Your task to perform on an android device: Clear the shopping cart on walmart.com. Search for "usb-c to usb-b" on walmart.com, select the first entry, and add it to the cart. Image 0: 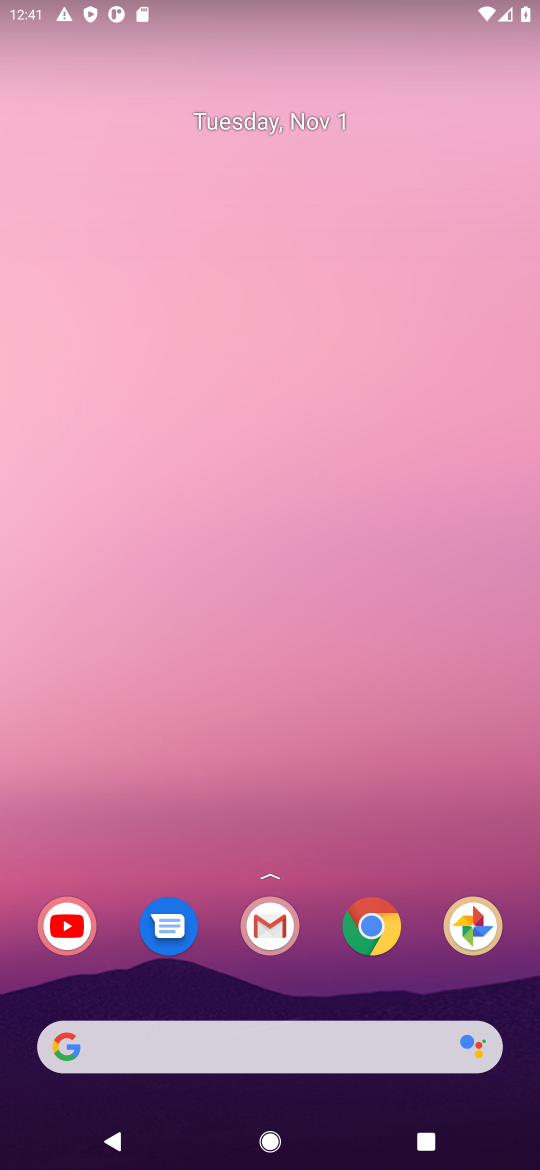
Step 0: click (365, 937)
Your task to perform on an android device: Clear the shopping cart on walmart.com. Search for "usb-c to usb-b" on walmart.com, select the first entry, and add it to the cart. Image 1: 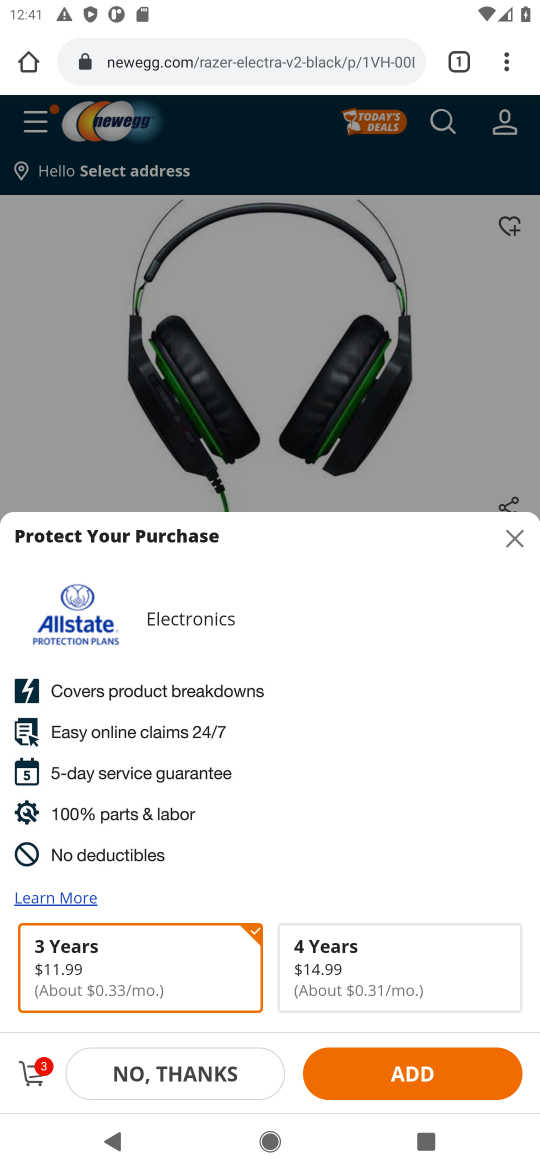
Step 1: click (244, 54)
Your task to perform on an android device: Clear the shopping cart on walmart.com. Search for "usb-c to usb-b" on walmart.com, select the first entry, and add it to the cart. Image 2: 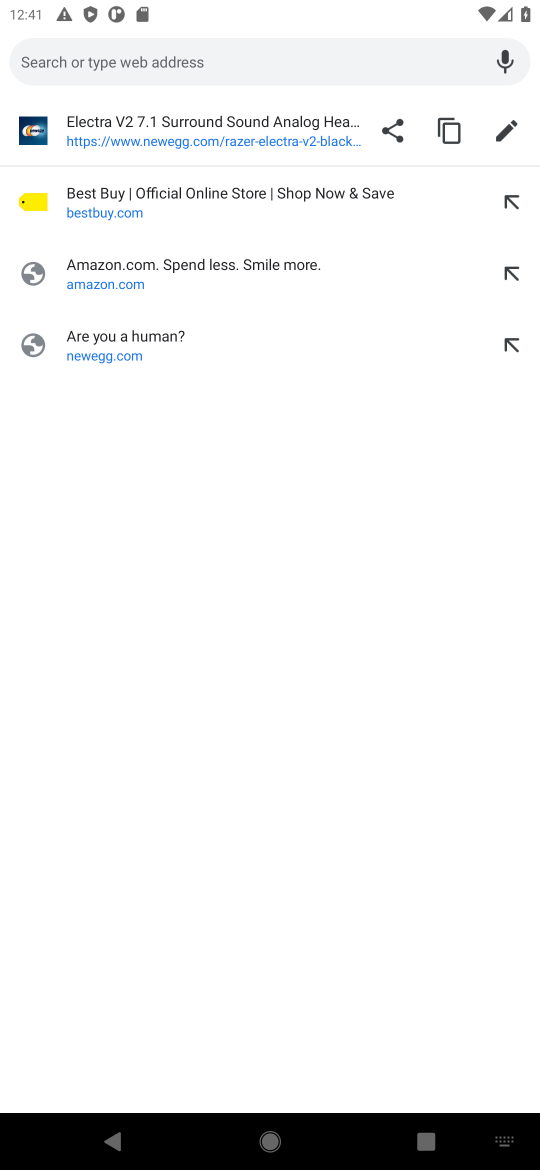
Step 2: type "walmart"
Your task to perform on an android device: Clear the shopping cart on walmart.com. Search for "usb-c to usb-b" on walmart.com, select the first entry, and add it to the cart. Image 3: 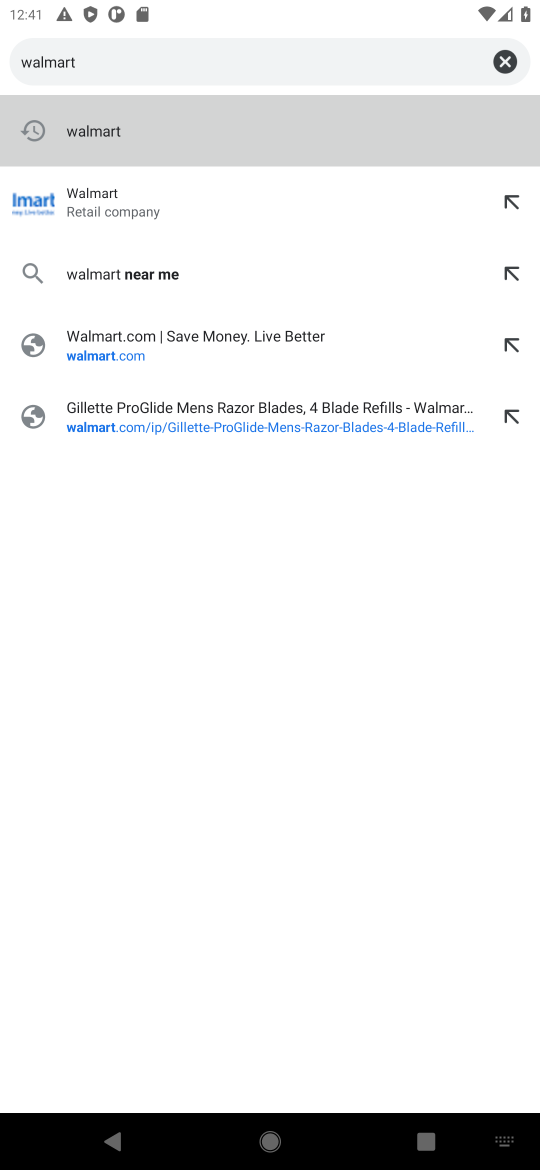
Step 3: click (202, 129)
Your task to perform on an android device: Clear the shopping cart on walmart.com. Search for "usb-c to usb-b" on walmart.com, select the first entry, and add it to the cart. Image 4: 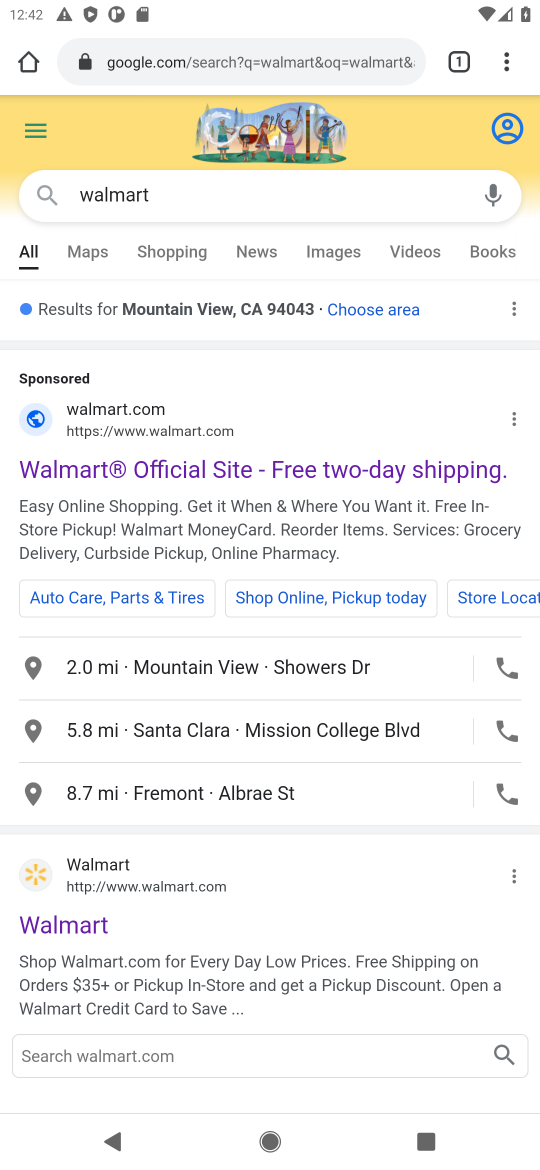
Step 4: click (55, 921)
Your task to perform on an android device: Clear the shopping cart on walmart.com. Search for "usb-c to usb-b" on walmart.com, select the first entry, and add it to the cart. Image 5: 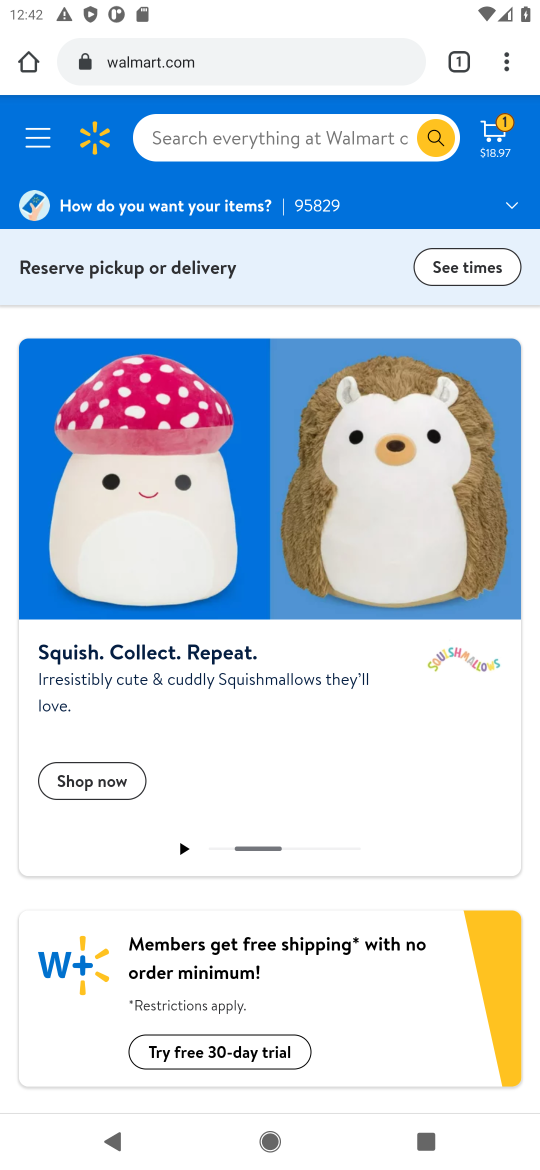
Step 5: click (491, 137)
Your task to perform on an android device: Clear the shopping cart on walmart.com. Search for "usb-c to usb-b" on walmart.com, select the first entry, and add it to the cart. Image 6: 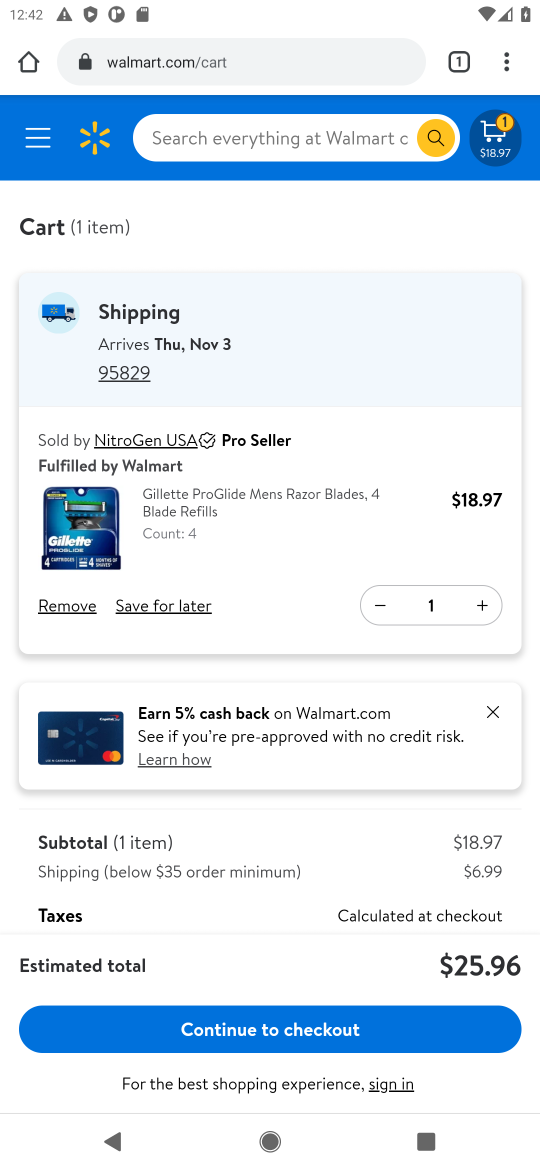
Step 6: click (380, 607)
Your task to perform on an android device: Clear the shopping cart on walmart.com. Search for "usb-c to usb-b" on walmart.com, select the first entry, and add it to the cart. Image 7: 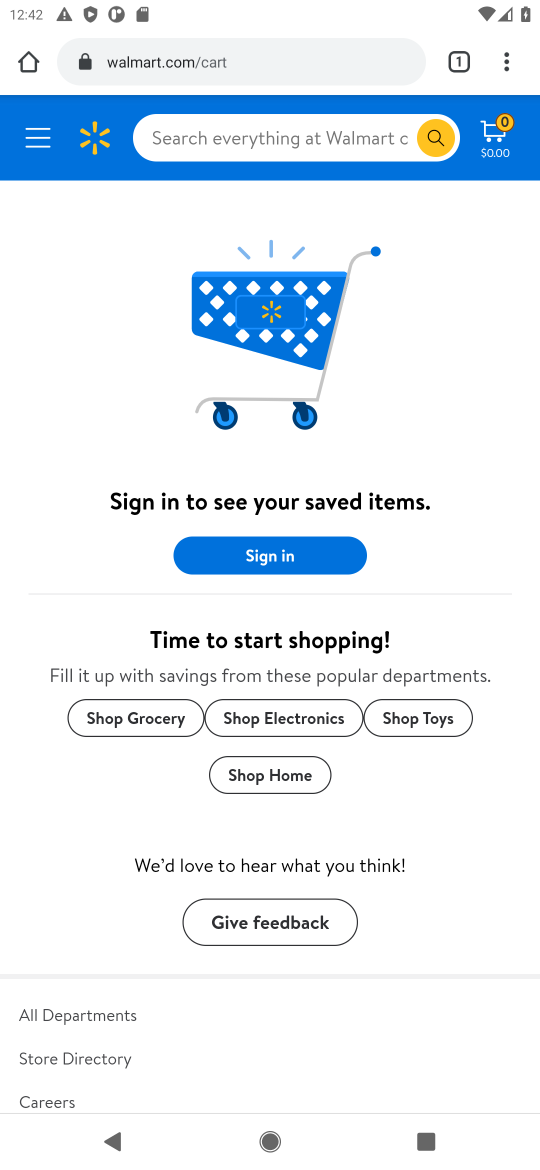
Step 7: click (252, 142)
Your task to perform on an android device: Clear the shopping cart on walmart.com. Search for "usb-c to usb-b" on walmart.com, select the first entry, and add it to the cart. Image 8: 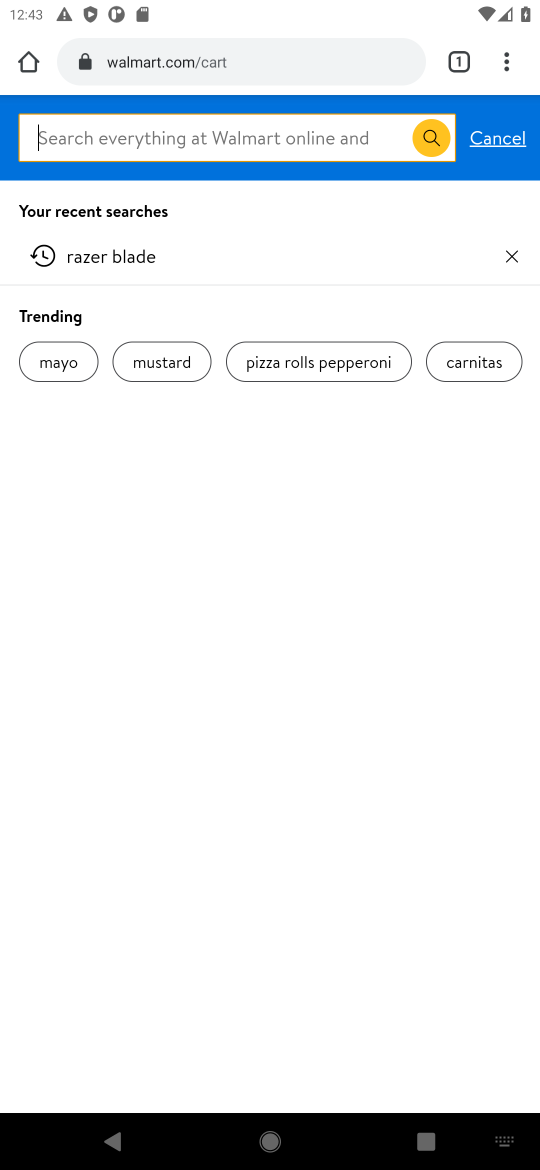
Step 8: type "usb-c to usb-b"
Your task to perform on an android device: Clear the shopping cart on walmart.com. Search for "usb-c to usb-b" on walmart.com, select the first entry, and add it to the cart. Image 9: 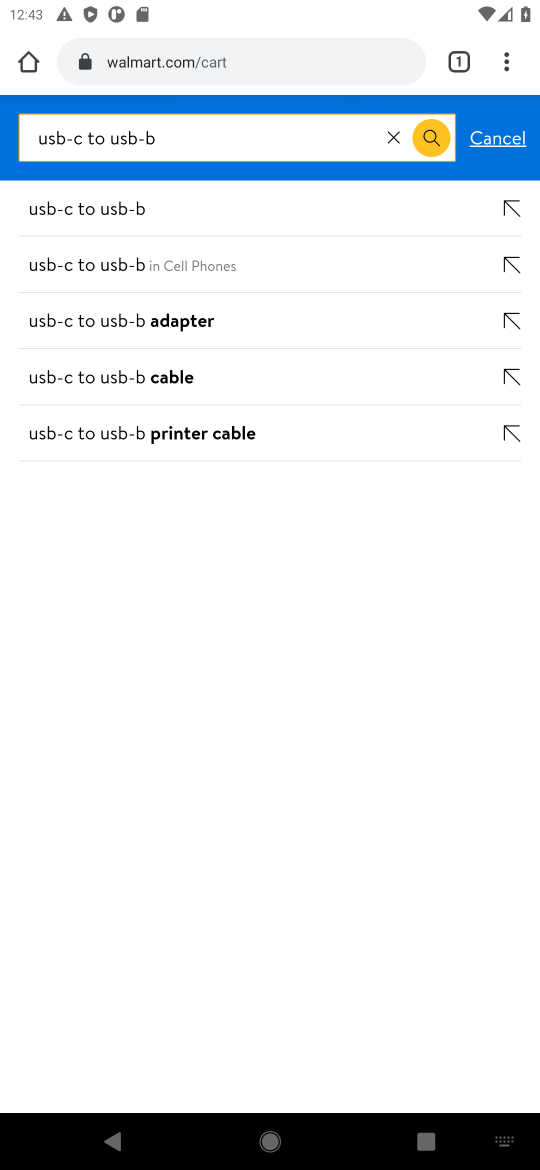
Step 9: click (134, 203)
Your task to perform on an android device: Clear the shopping cart on walmart.com. Search for "usb-c to usb-b" on walmart.com, select the first entry, and add it to the cart. Image 10: 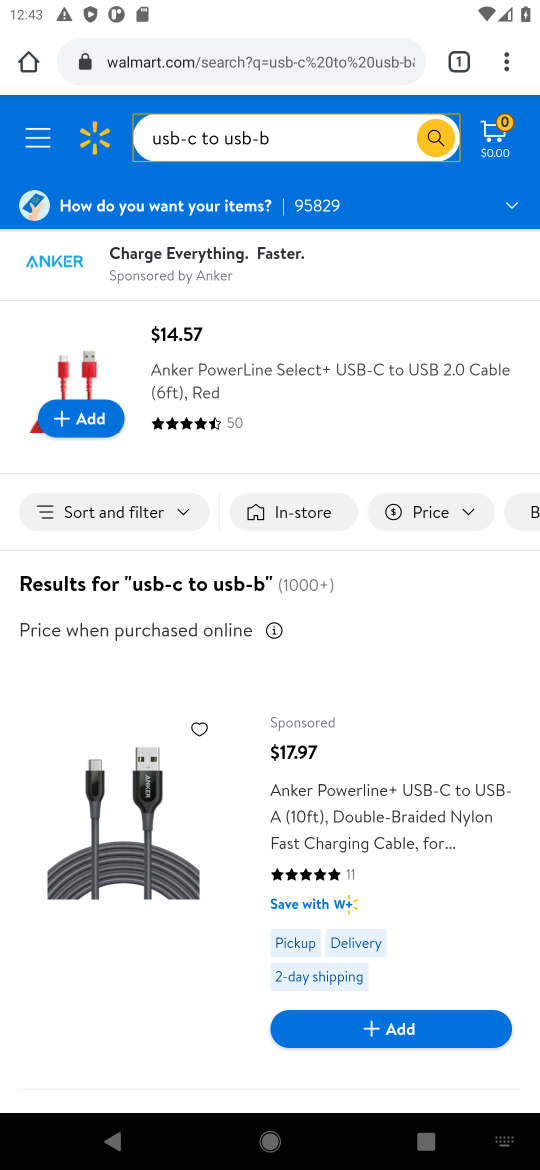
Step 10: click (184, 812)
Your task to perform on an android device: Clear the shopping cart on walmart.com. Search for "usb-c to usb-b" on walmart.com, select the first entry, and add it to the cart. Image 11: 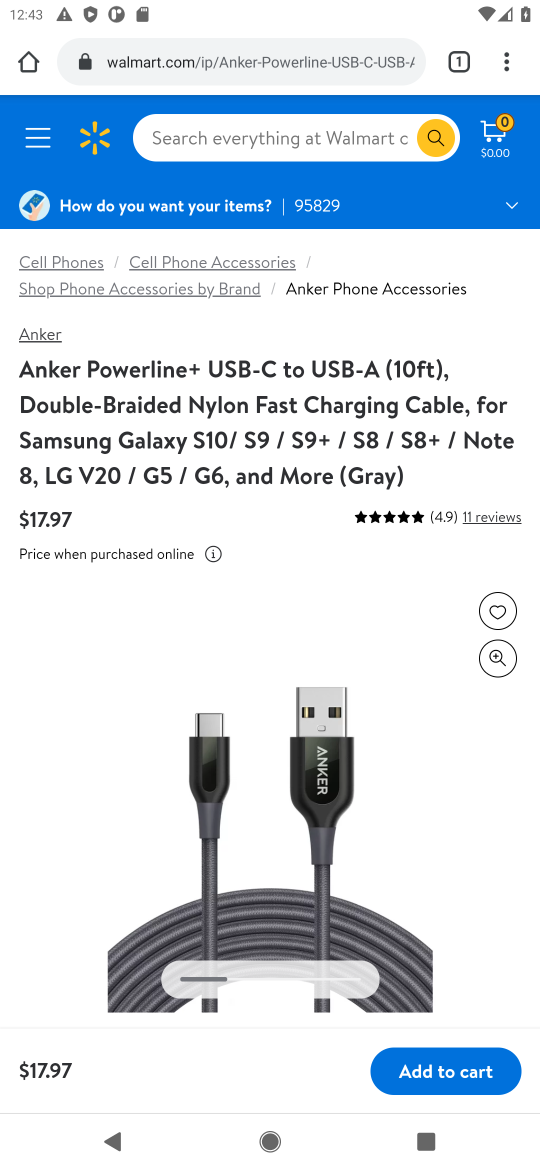
Step 11: press back button
Your task to perform on an android device: Clear the shopping cart on walmart.com. Search for "usb-c to usb-b" on walmart.com, select the first entry, and add it to the cart. Image 12: 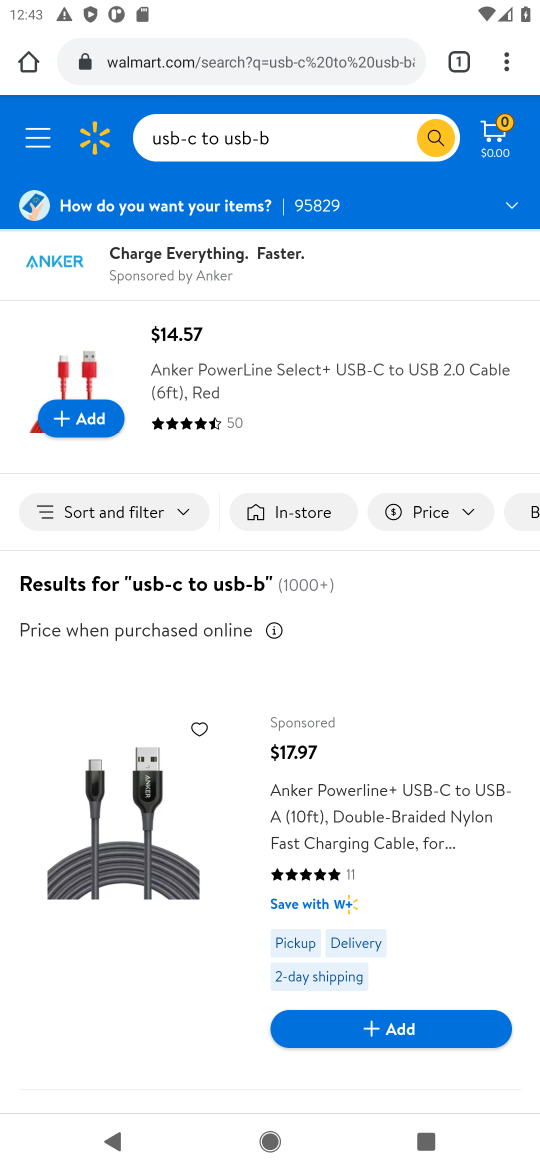
Step 12: drag from (215, 946) to (237, 757)
Your task to perform on an android device: Clear the shopping cart on walmart.com. Search for "usb-c to usb-b" on walmart.com, select the first entry, and add it to the cart. Image 13: 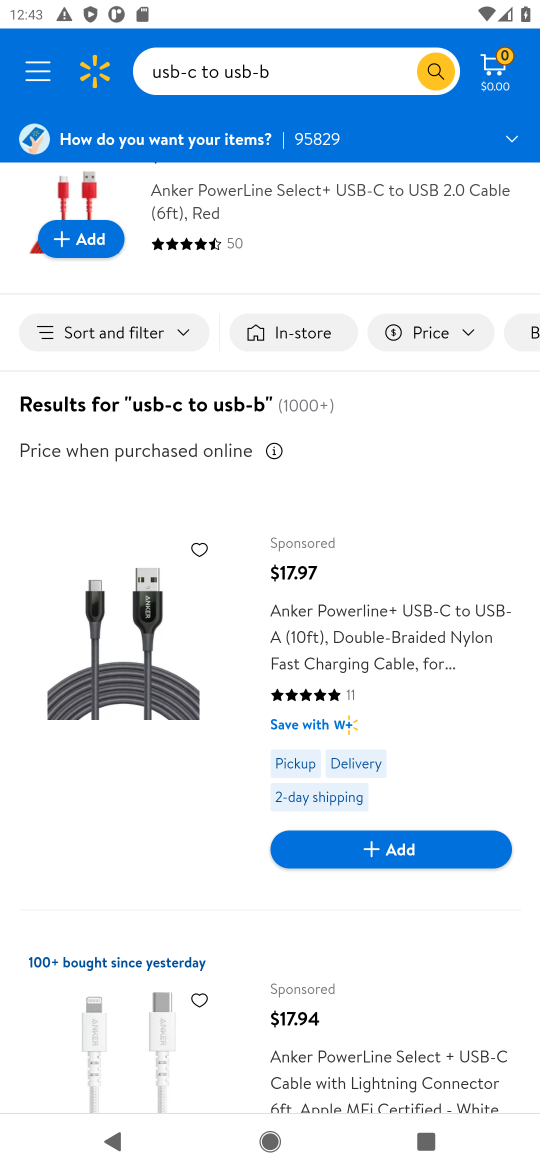
Step 13: click (399, 854)
Your task to perform on an android device: Clear the shopping cart on walmart.com. Search for "usb-c to usb-b" on walmart.com, select the first entry, and add it to the cart. Image 14: 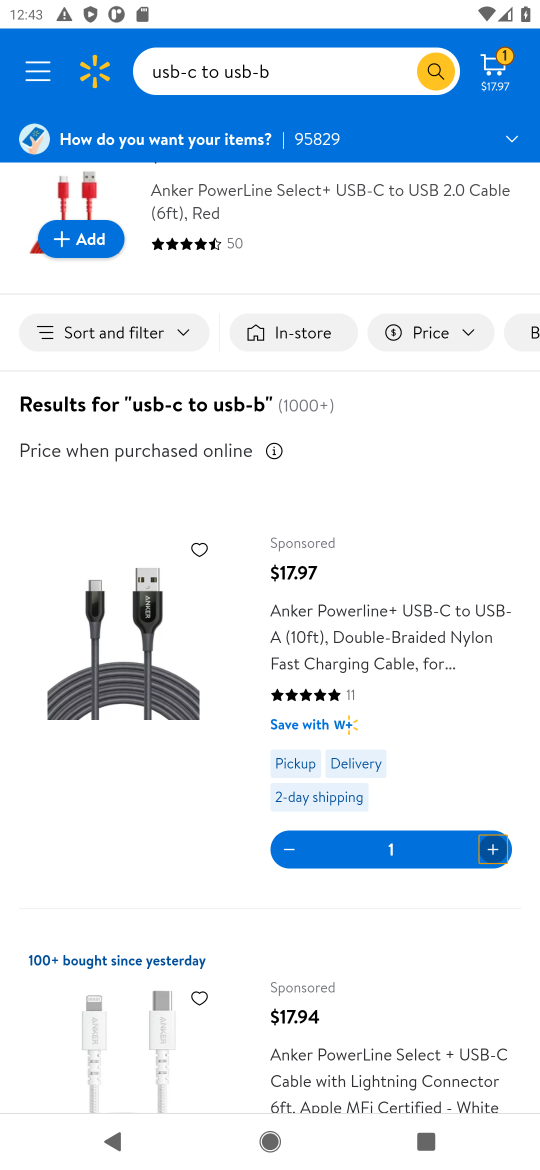
Step 14: task complete